Your task to perform on an android device: Open sound settings Image 0: 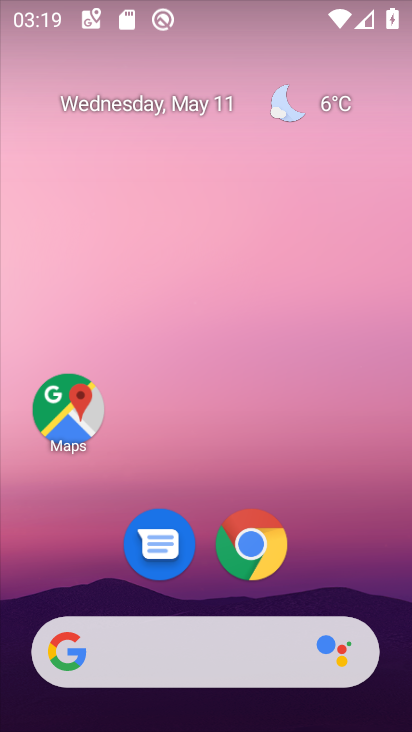
Step 0: drag from (374, 93) to (383, 60)
Your task to perform on an android device: Open sound settings Image 1: 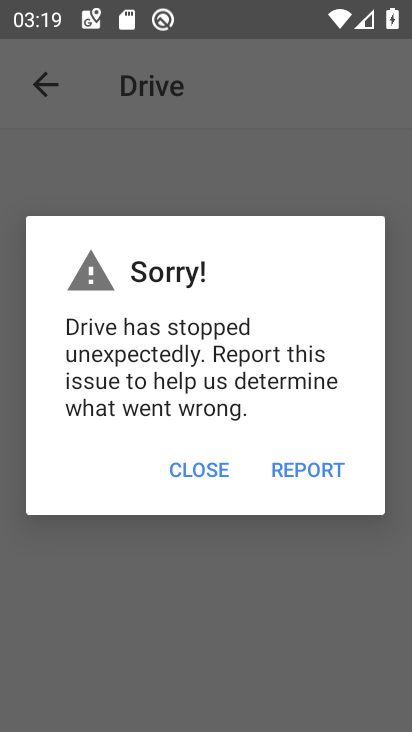
Step 1: press home button
Your task to perform on an android device: Open sound settings Image 2: 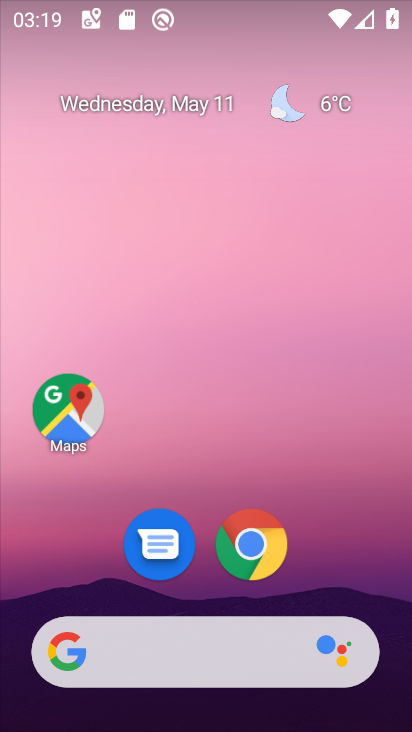
Step 2: drag from (295, 585) to (367, 79)
Your task to perform on an android device: Open sound settings Image 3: 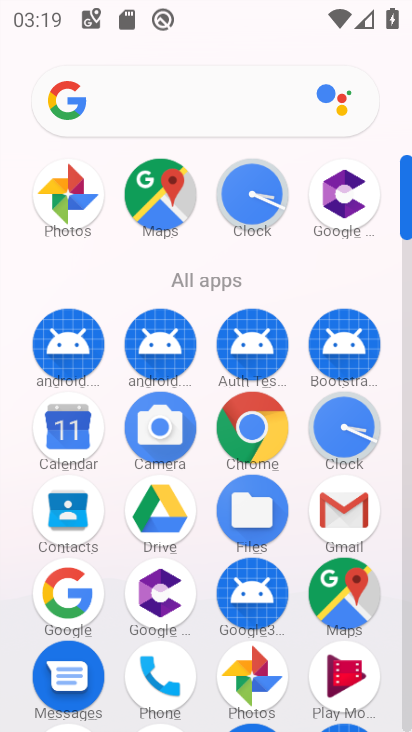
Step 3: drag from (287, 618) to (326, 379)
Your task to perform on an android device: Open sound settings Image 4: 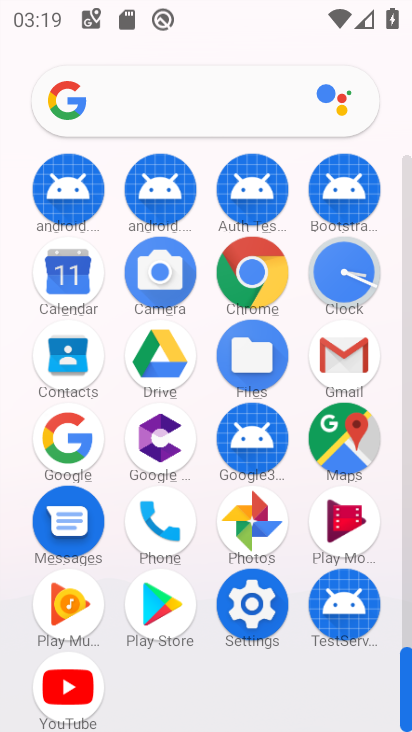
Step 4: click (256, 617)
Your task to perform on an android device: Open sound settings Image 5: 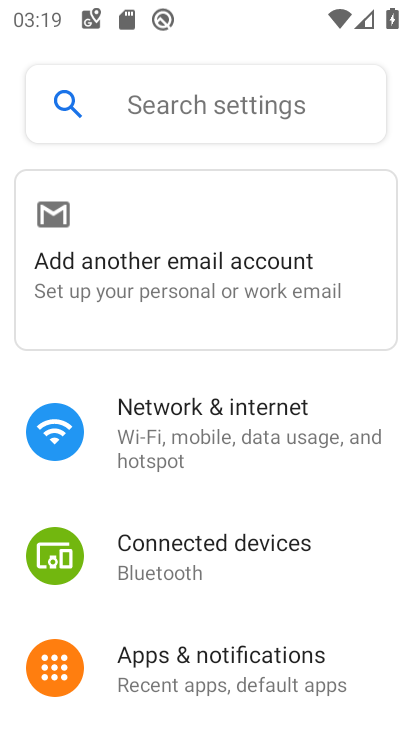
Step 5: drag from (232, 629) to (233, 521)
Your task to perform on an android device: Open sound settings Image 6: 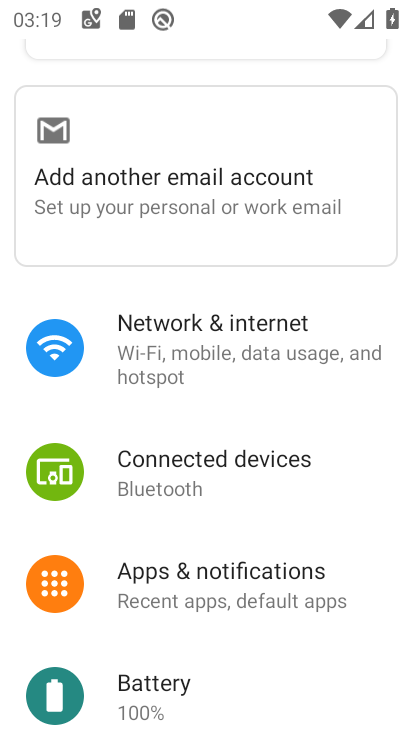
Step 6: drag from (244, 623) to (236, 497)
Your task to perform on an android device: Open sound settings Image 7: 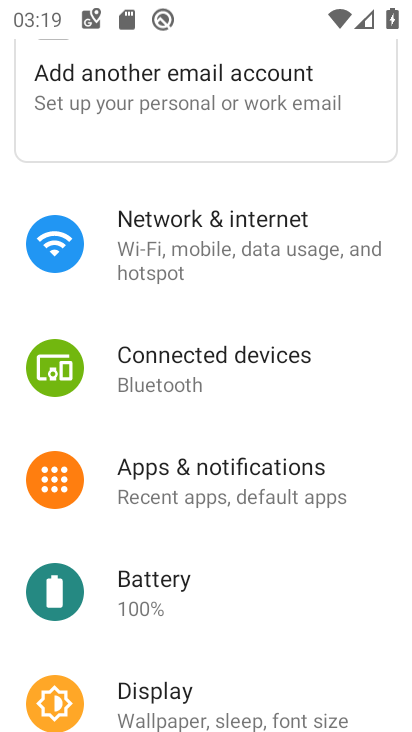
Step 7: drag from (222, 660) to (211, 482)
Your task to perform on an android device: Open sound settings Image 8: 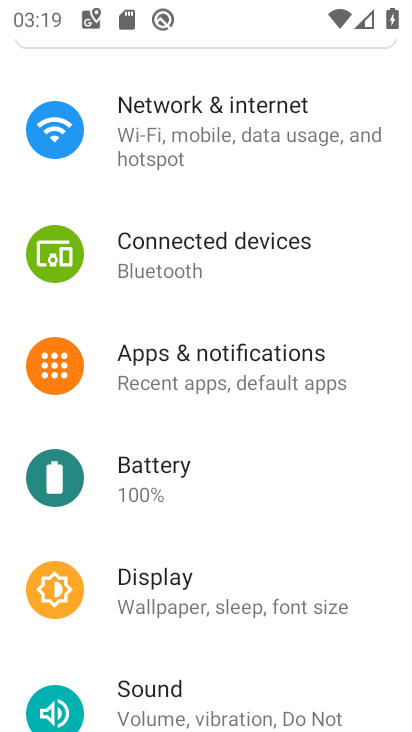
Step 8: click (226, 704)
Your task to perform on an android device: Open sound settings Image 9: 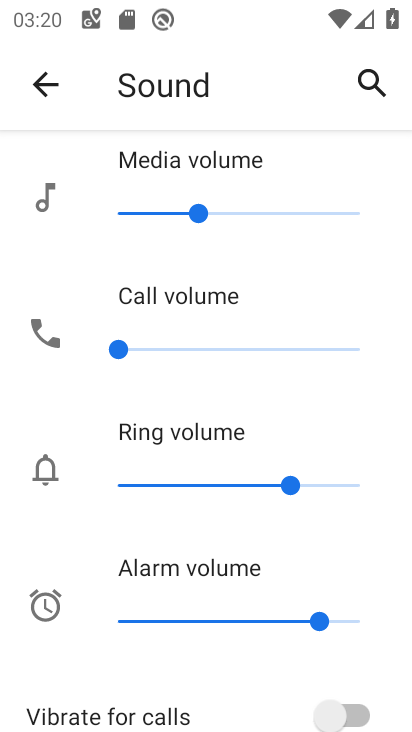
Step 9: task complete